Your task to perform on an android device: Open Google Chrome and open the bookmarks view Image 0: 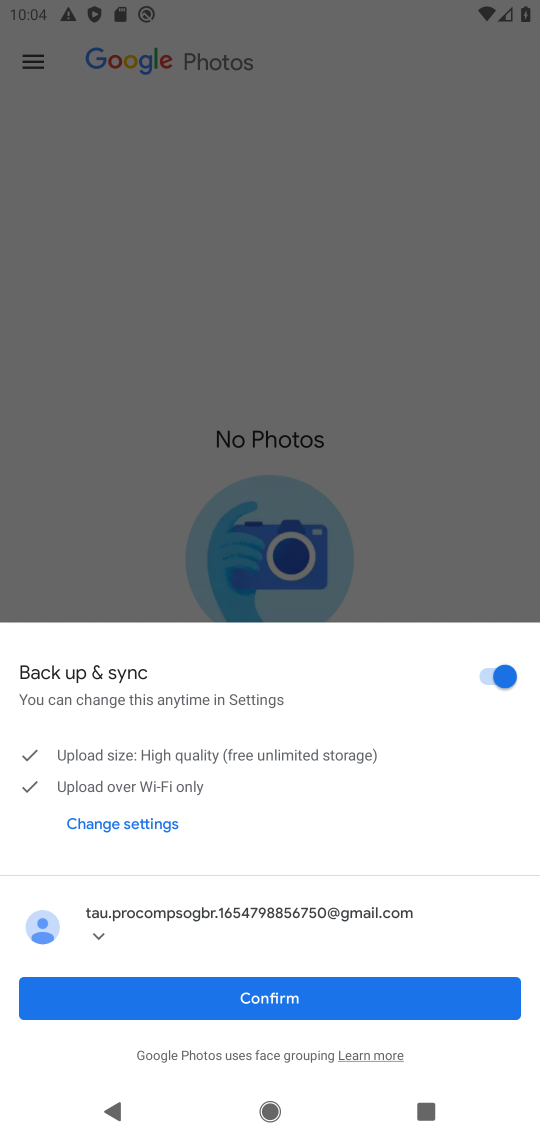
Step 0: press home button
Your task to perform on an android device: Open Google Chrome and open the bookmarks view Image 1: 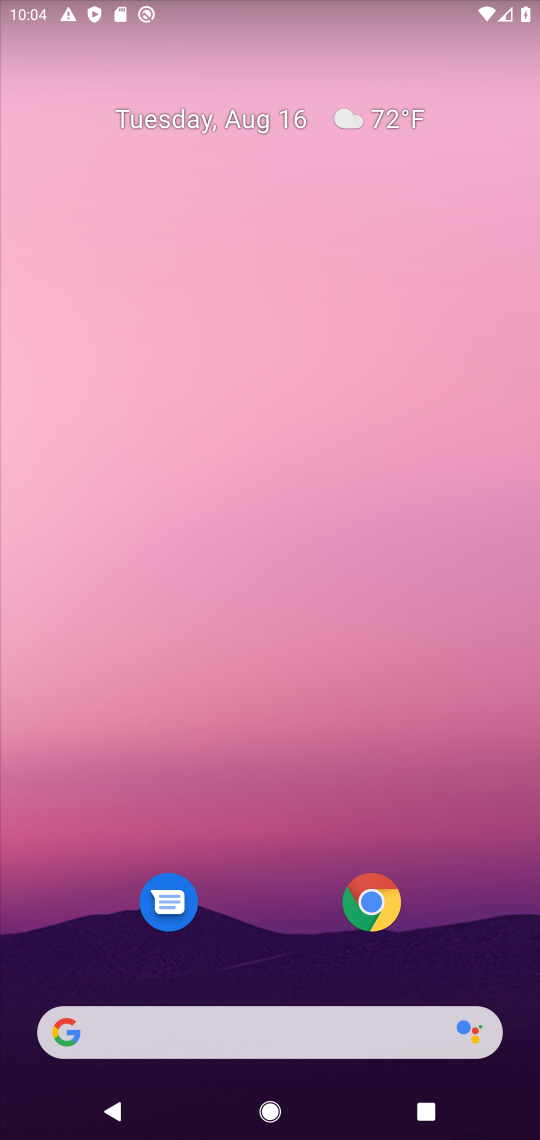
Step 1: click (385, 906)
Your task to perform on an android device: Open Google Chrome and open the bookmarks view Image 2: 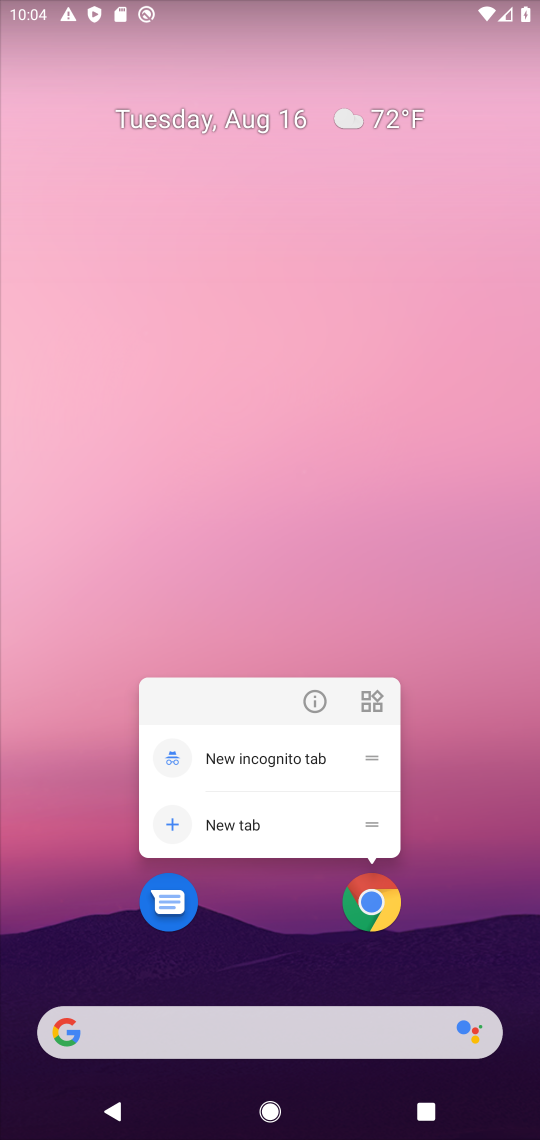
Step 2: click (381, 911)
Your task to perform on an android device: Open Google Chrome and open the bookmarks view Image 3: 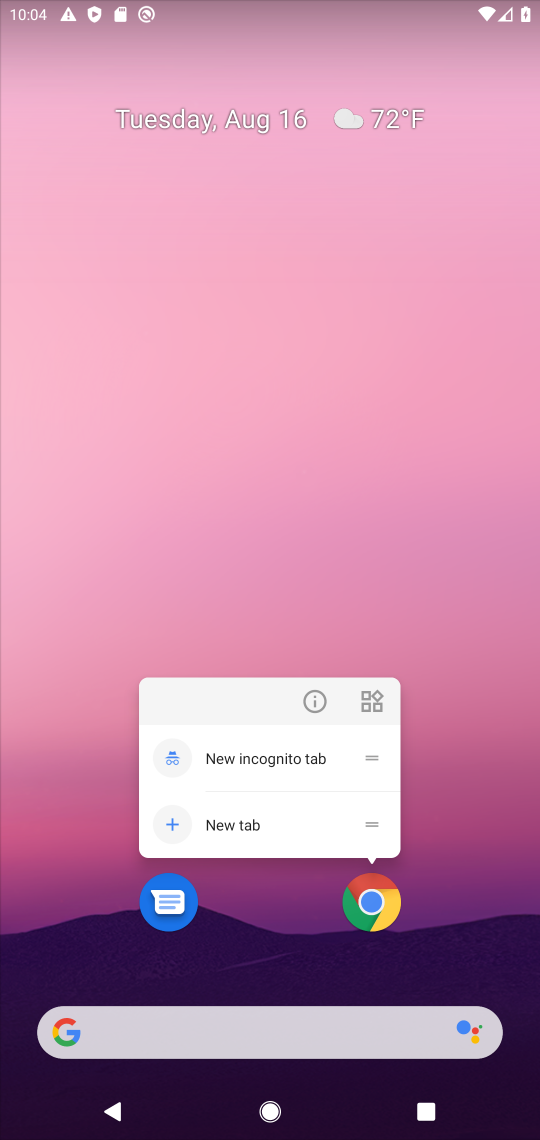
Step 3: click (361, 895)
Your task to perform on an android device: Open Google Chrome and open the bookmarks view Image 4: 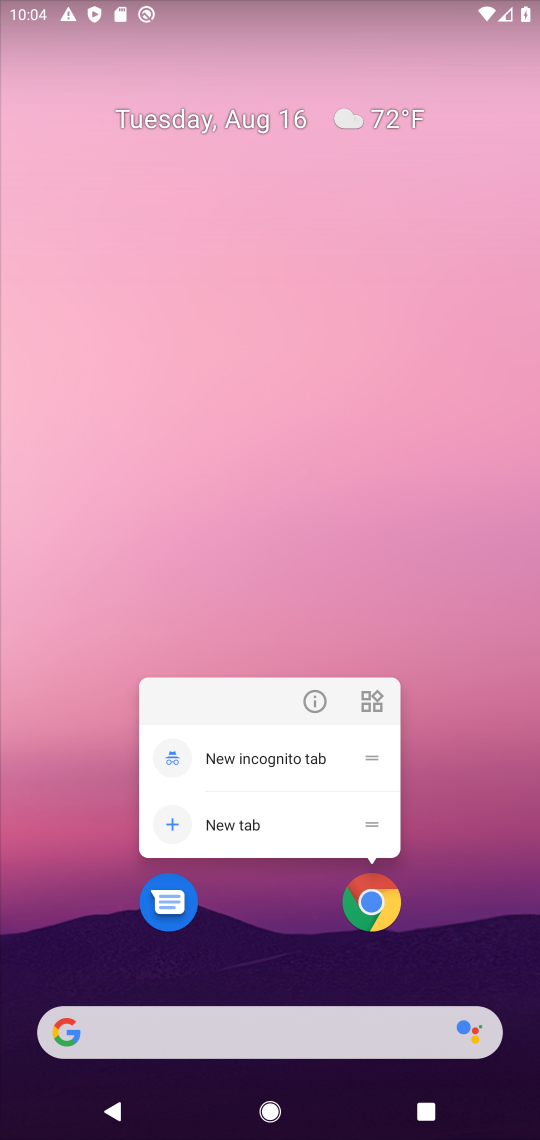
Step 4: click (361, 895)
Your task to perform on an android device: Open Google Chrome and open the bookmarks view Image 5: 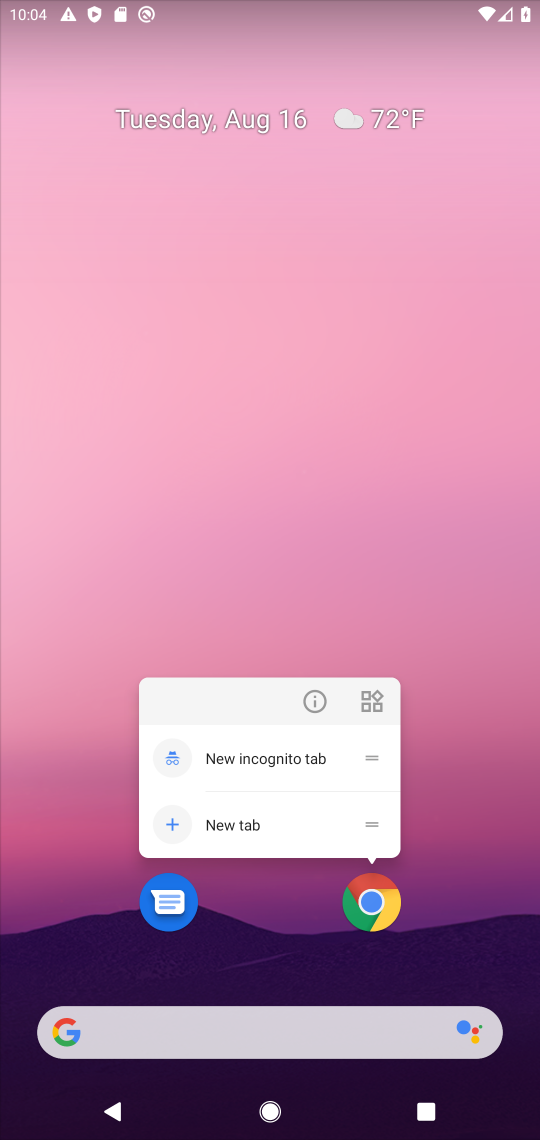
Step 5: click (361, 895)
Your task to perform on an android device: Open Google Chrome and open the bookmarks view Image 6: 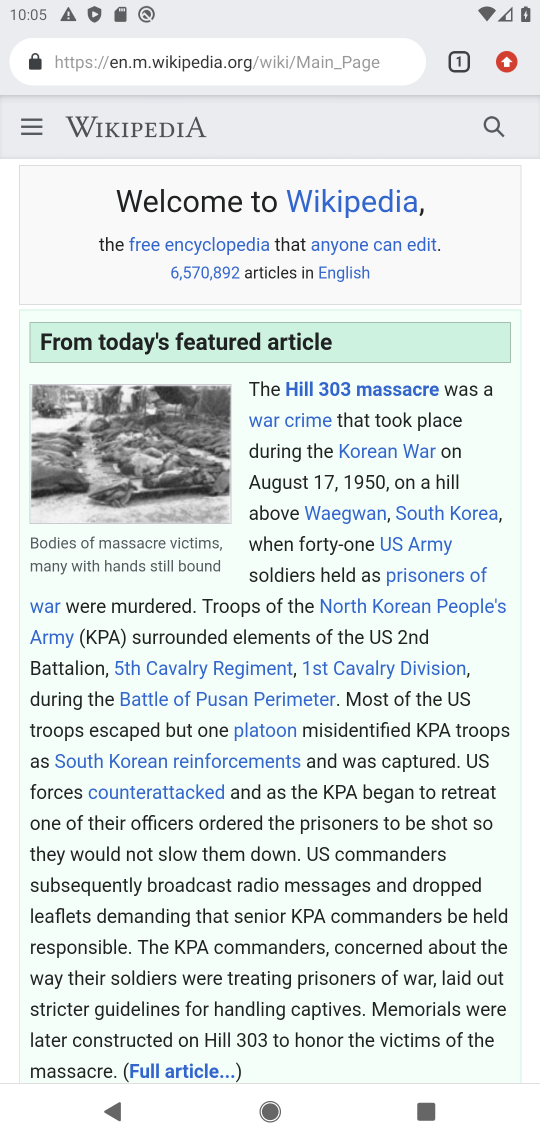
Step 6: click (495, 46)
Your task to perform on an android device: Open Google Chrome and open the bookmarks view Image 7: 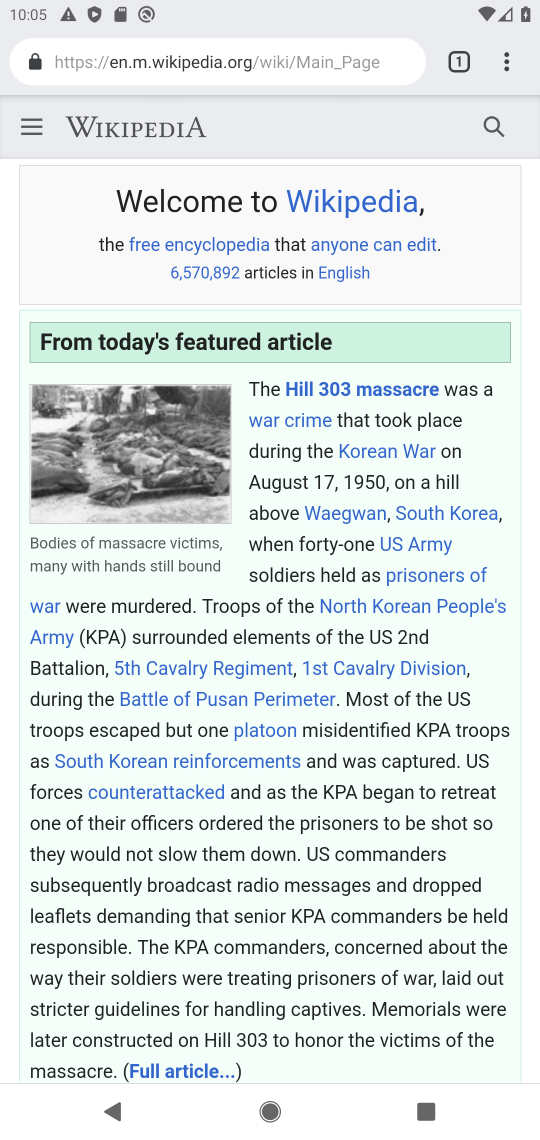
Step 7: click (501, 73)
Your task to perform on an android device: Open Google Chrome and open the bookmarks view Image 8: 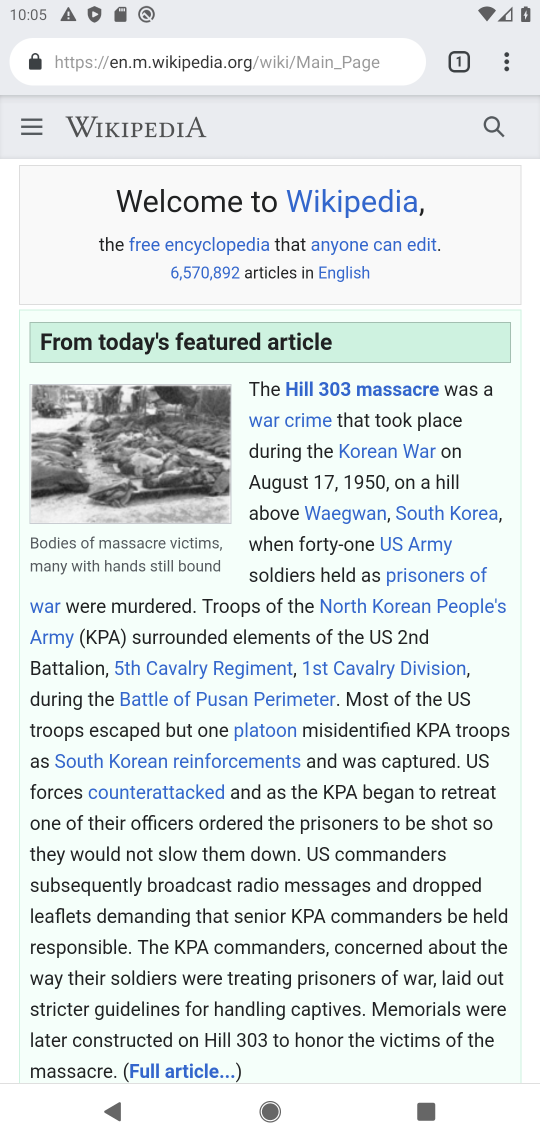
Step 8: click (503, 71)
Your task to perform on an android device: Open Google Chrome and open the bookmarks view Image 9: 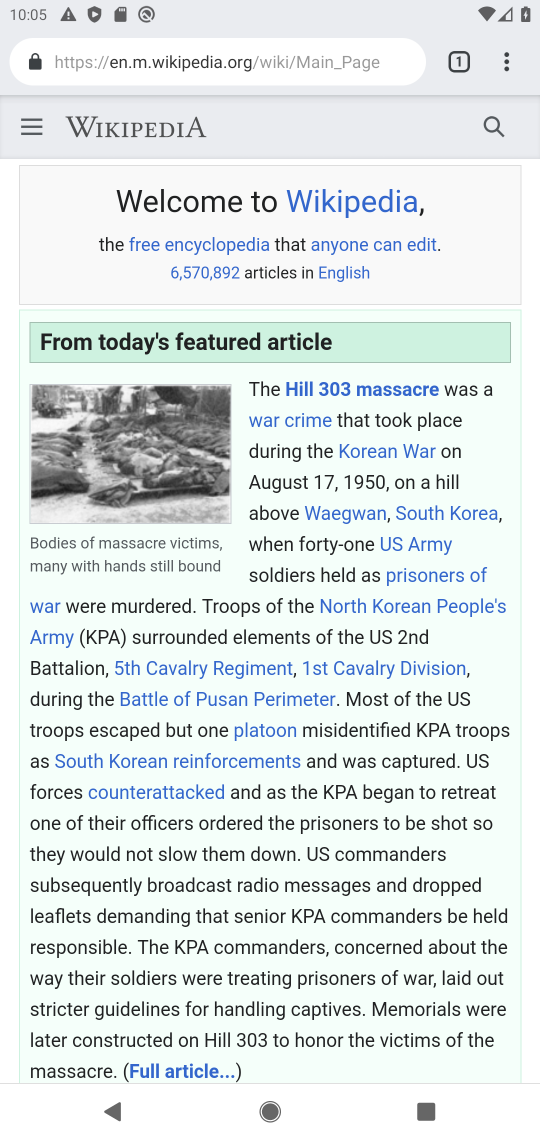
Step 9: click (504, 59)
Your task to perform on an android device: Open Google Chrome and open the bookmarks view Image 10: 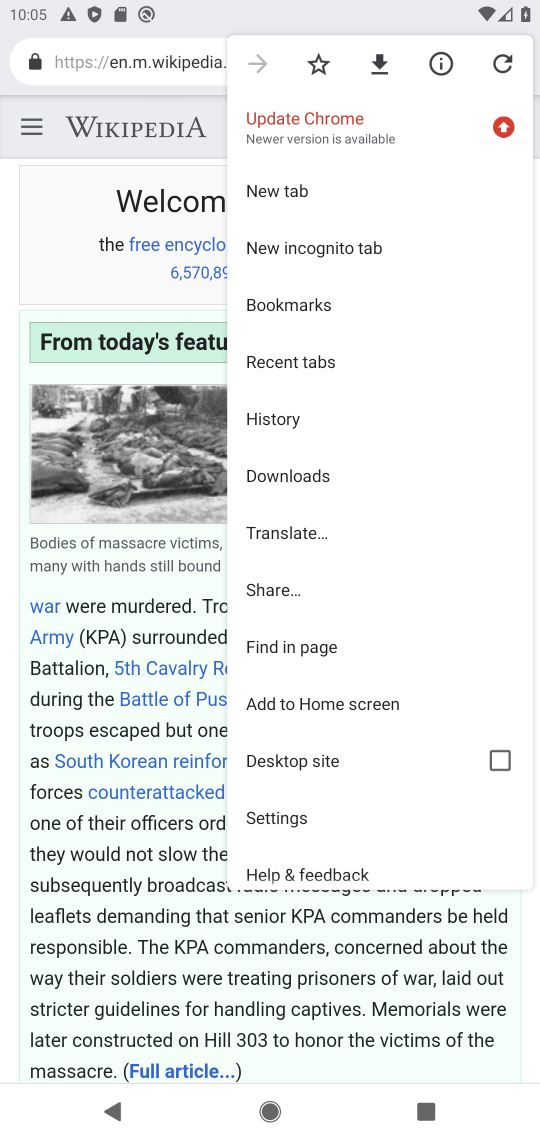
Step 10: click (292, 312)
Your task to perform on an android device: Open Google Chrome and open the bookmarks view Image 11: 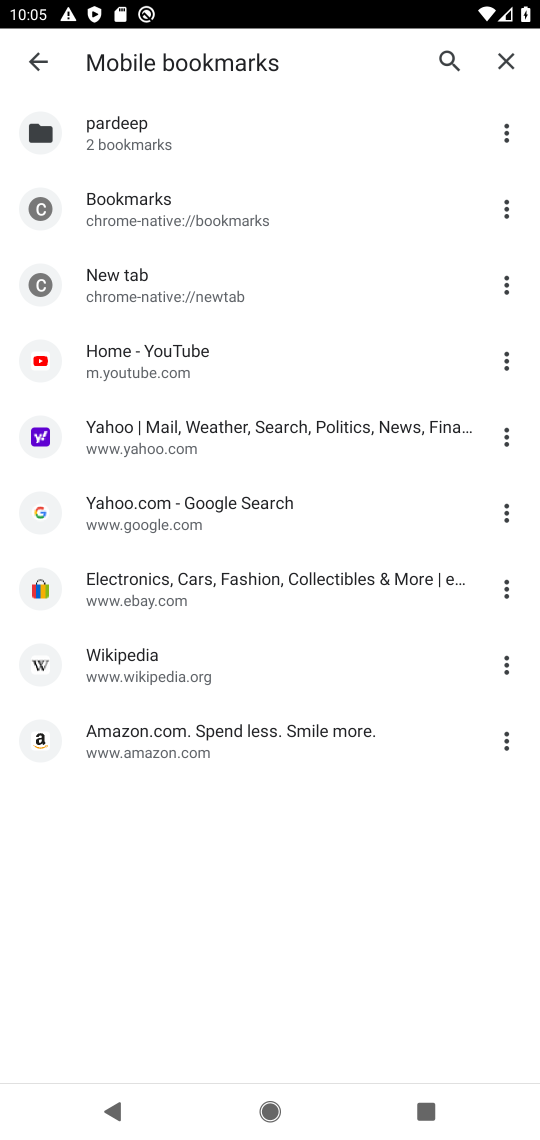
Step 11: task complete